Your task to perform on an android device: Show the shopping cart on costco.com. Search for razer naga on costco.com, select the first entry, and add it to the cart. Image 0: 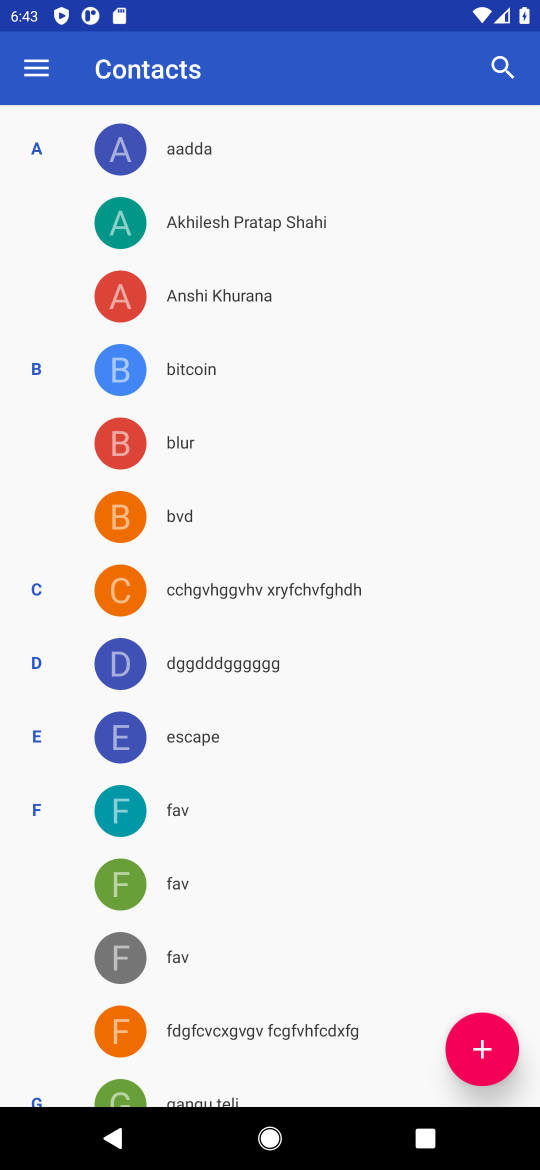
Step 0: press home button
Your task to perform on an android device: Show the shopping cart on costco.com. Search for razer naga on costco.com, select the first entry, and add it to the cart. Image 1: 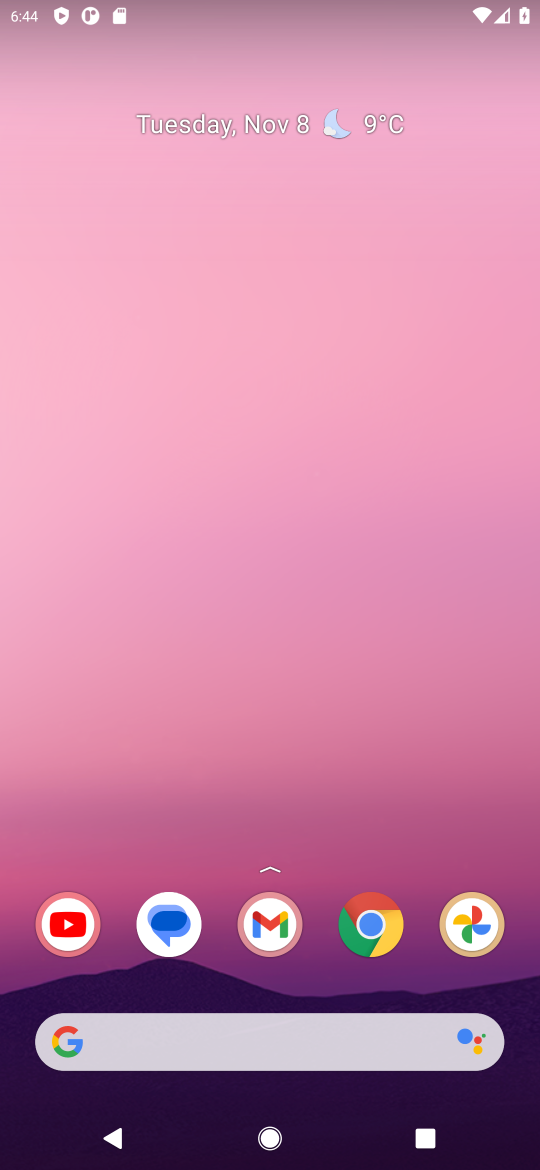
Step 1: click (284, 1046)
Your task to perform on an android device: Show the shopping cart on costco.com. Search for razer naga on costco.com, select the first entry, and add it to the cart. Image 2: 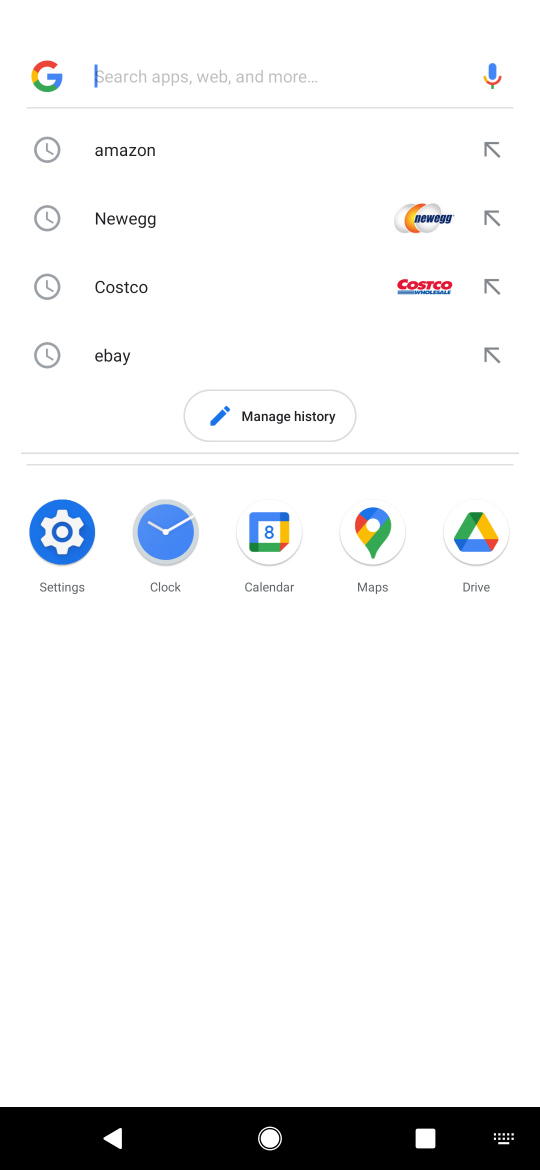
Step 2: click (284, 273)
Your task to perform on an android device: Show the shopping cart on costco.com. Search for razer naga on costco.com, select the first entry, and add it to the cart. Image 3: 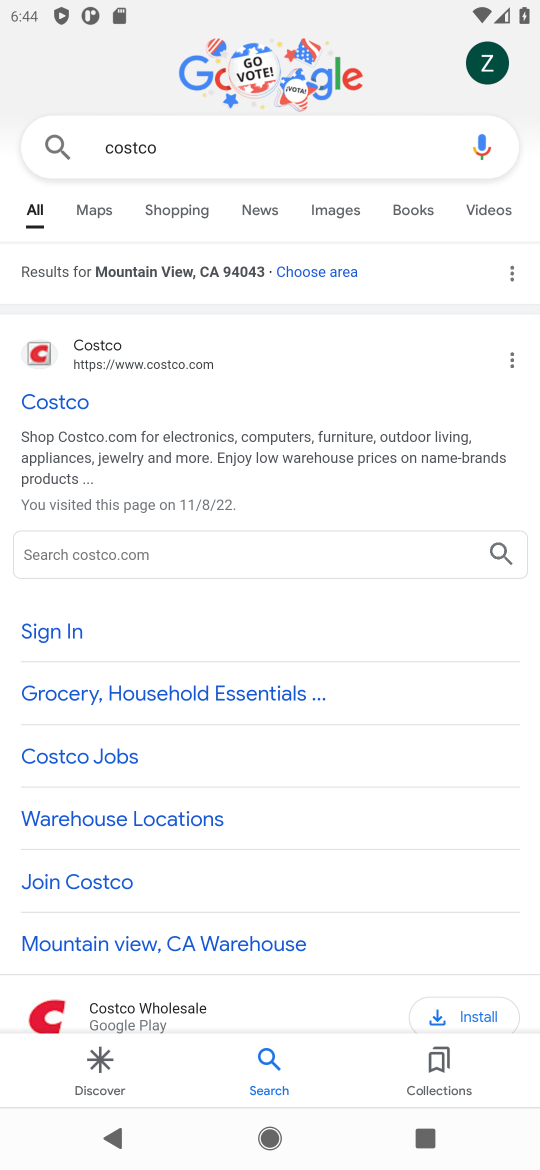
Step 3: click (106, 338)
Your task to perform on an android device: Show the shopping cart on costco.com. Search for razer naga on costco.com, select the first entry, and add it to the cart. Image 4: 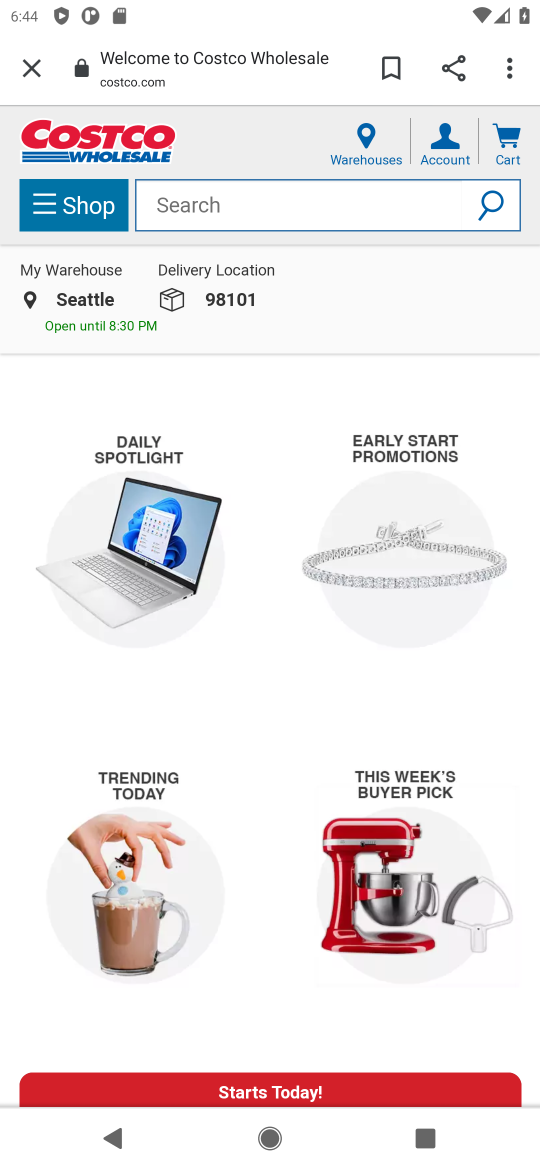
Step 4: click (408, 202)
Your task to perform on an android device: Show the shopping cart on costco.com. Search for razer naga on costco.com, select the first entry, and add it to the cart. Image 5: 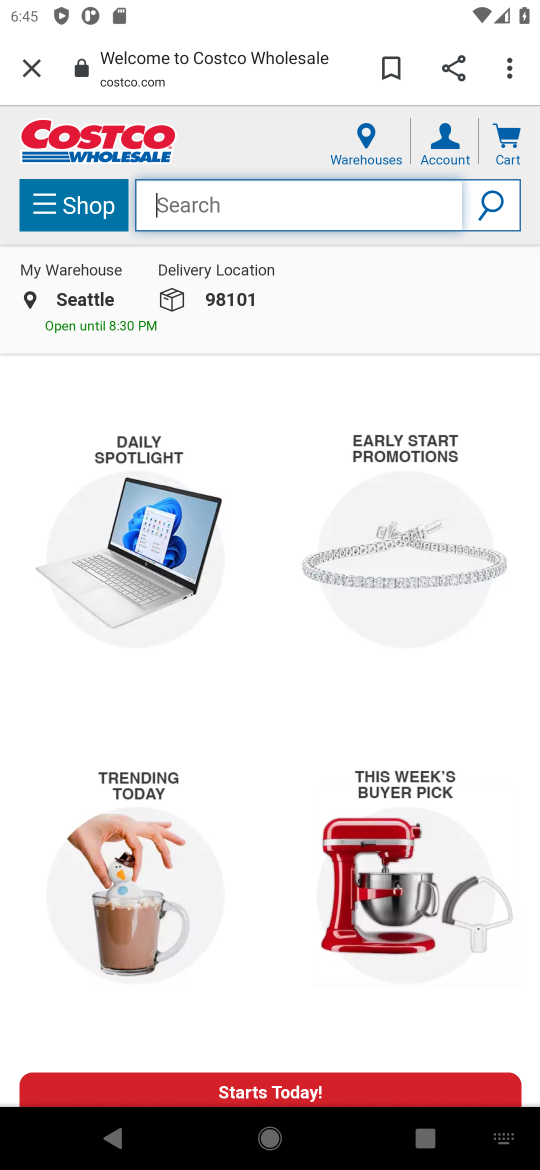
Step 5: type "razer naga "
Your task to perform on an android device: Show the shopping cart on costco.com. Search for razer naga on costco.com, select the first entry, and add it to the cart. Image 6: 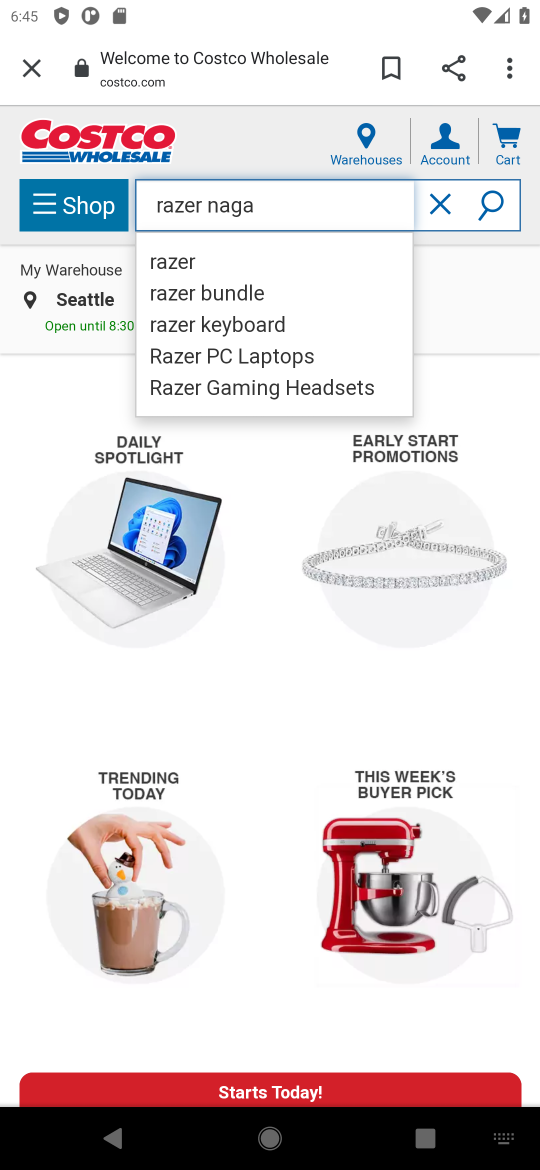
Step 6: click (177, 255)
Your task to perform on an android device: Show the shopping cart on costco.com. Search for razer naga on costco.com, select the first entry, and add it to the cart. Image 7: 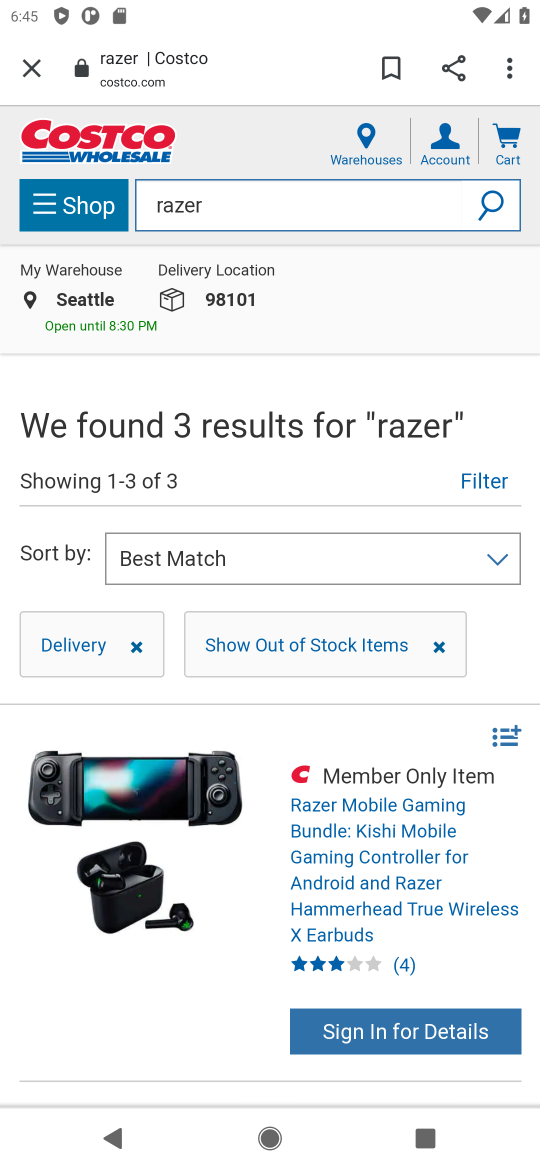
Step 7: click (166, 840)
Your task to perform on an android device: Show the shopping cart on costco.com. Search for razer naga on costco.com, select the first entry, and add it to the cart. Image 8: 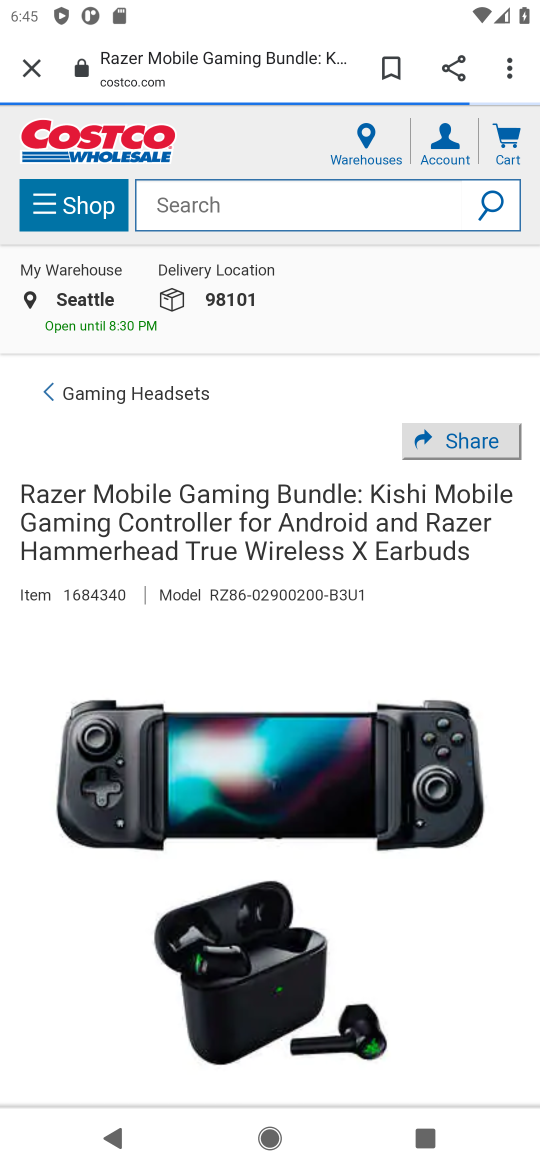
Step 8: drag from (356, 743) to (375, 449)
Your task to perform on an android device: Show the shopping cart on costco.com. Search for razer naga on costco.com, select the first entry, and add it to the cart. Image 9: 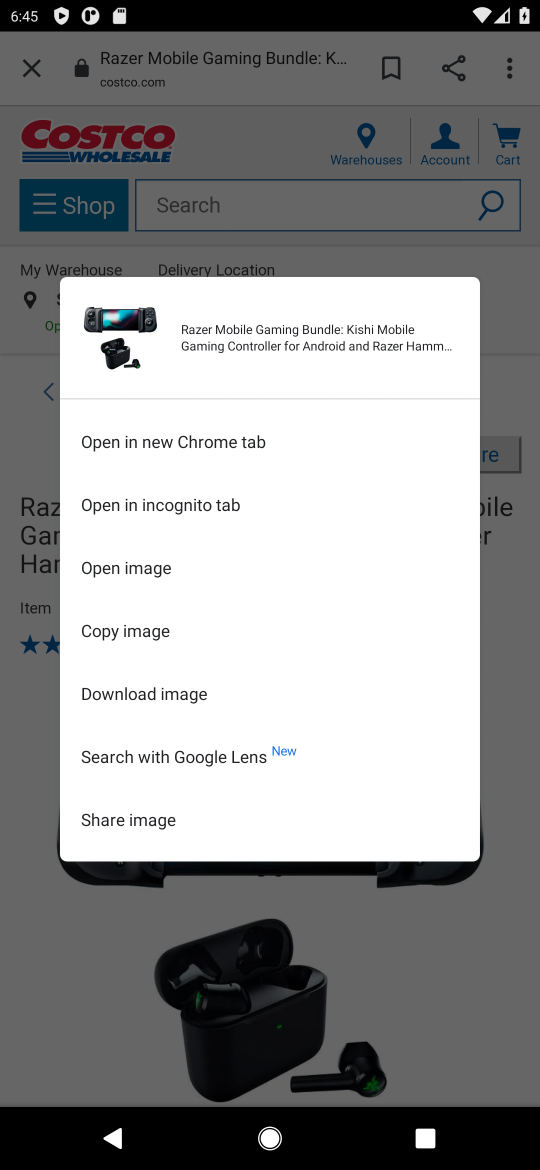
Step 9: click (420, 902)
Your task to perform on an android device: Show the shopping cart on costco.com. Search for razer naga on costco.com, select the first entry, and add it to the cart. Image 10: 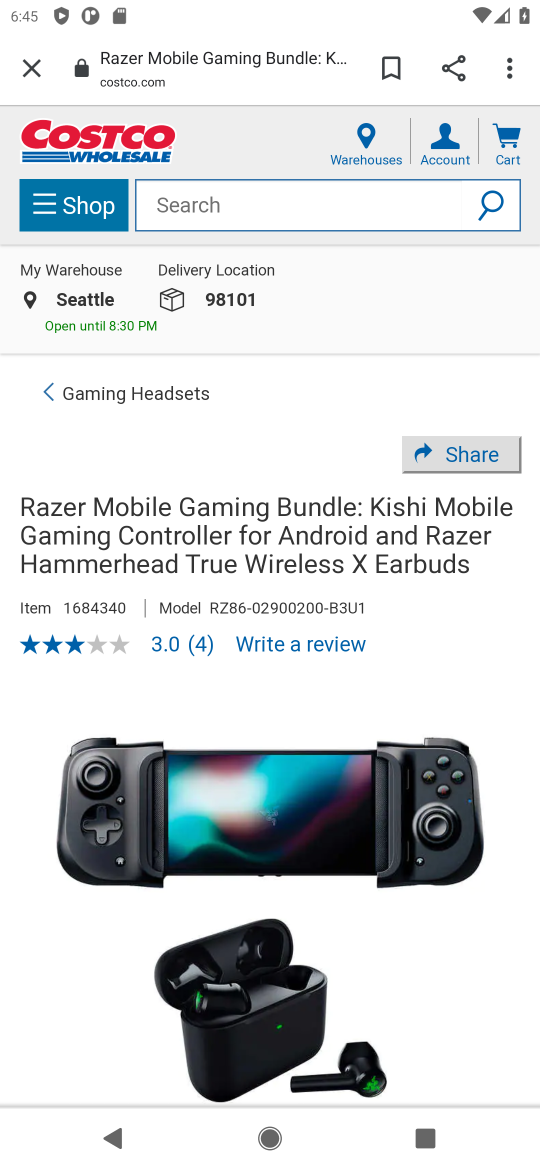
Step 10: drag from (393, 633) to (427, 557)
Your task to perform on an android device: Show the shopping cart on costco.com. Search for razer naga on costco.com, select the first entry, and add it to the cart. Image 11: 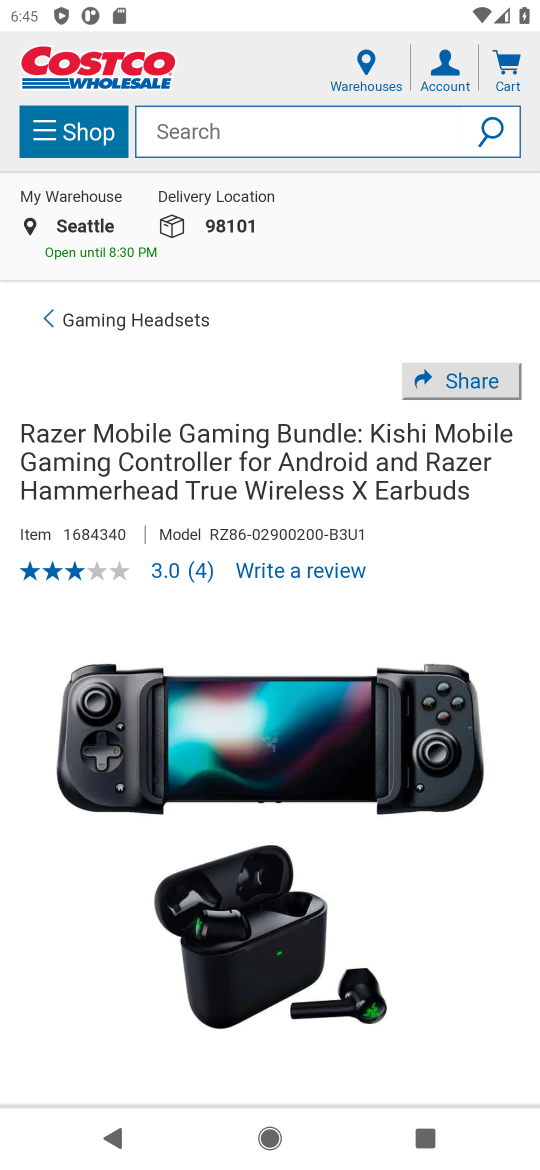
Step 11: click (281, 191)
Your task to perform on an android device: Show the shopping cart on costco.com. Search for razer naga on costco.com, select the first entry, and add it to the cart. Image 12: 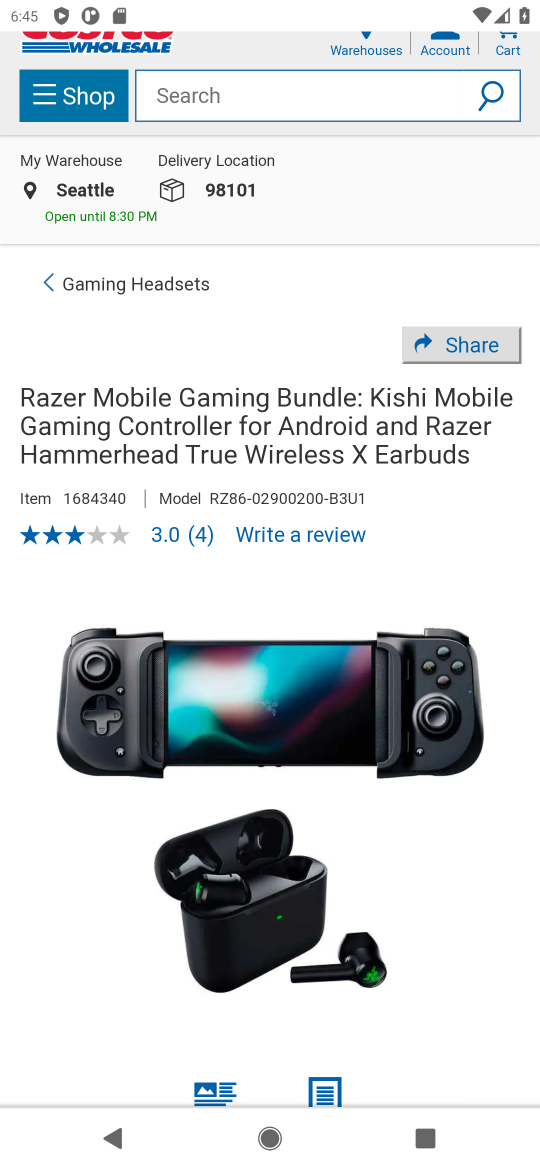
Step 12: drag from (290, 1005) to (427, 350)
Your task to perform on an android device: Show the shopping cart on costco.com. Search for razer naga on costco.com, select the first entry, and add it to the cart. Image 13: 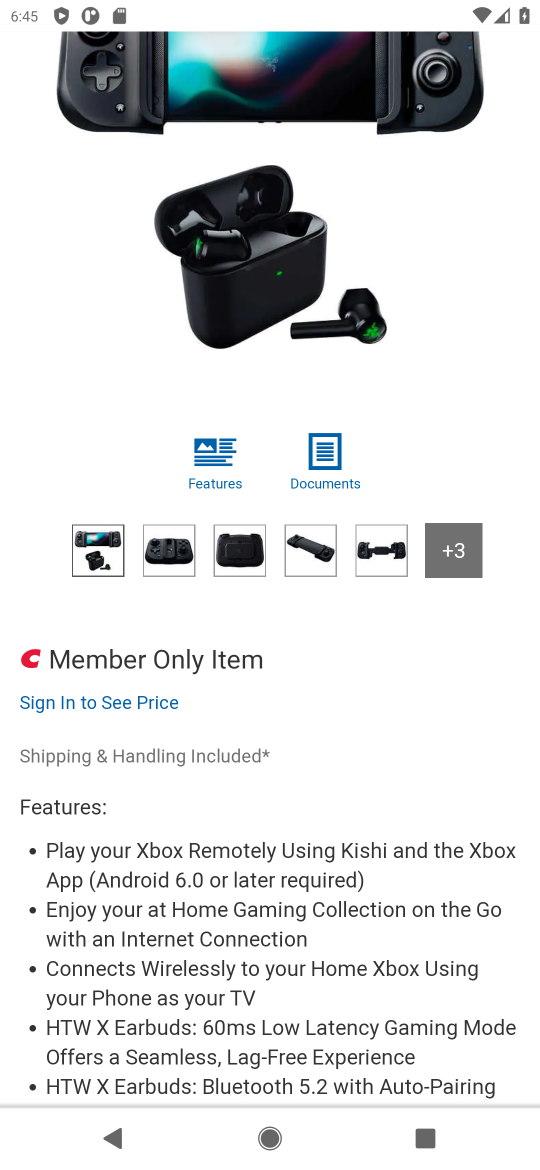
Step 13: drag from (274, 745) to (333, 328)
Your task to perform on an android device: Show the shopping cart on costco.com. Search for razer naga on costco.com, select the first entry, and add it to the cart. Image 14: 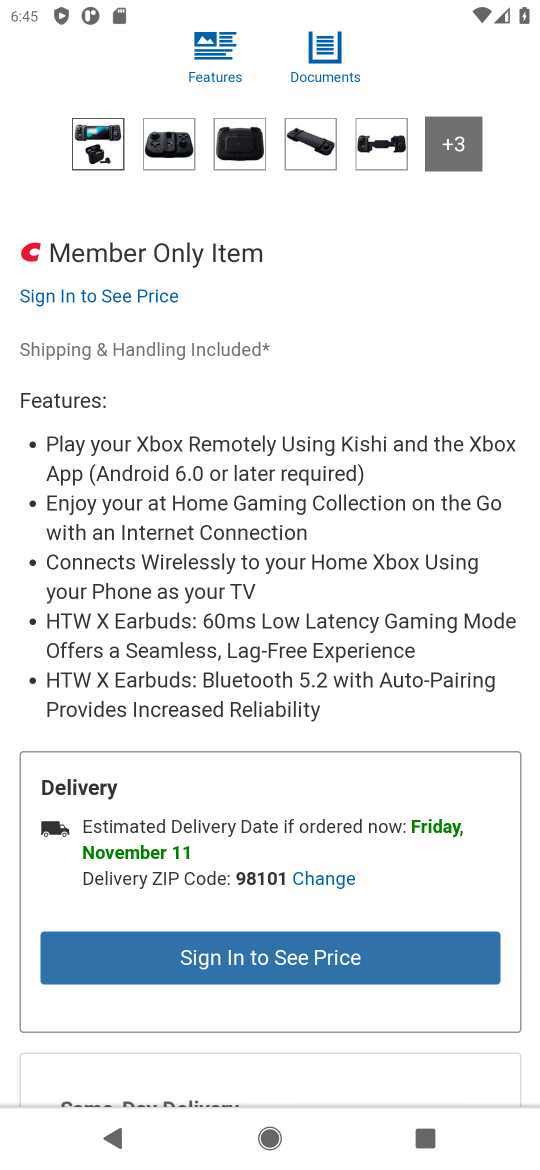
Step 14: drag from (266, 974) to (298, 568)
Your task to perform on an android device: Show the shopping cart on costco.com. Search for razer naga on costco.com, select the first entry, and add it to the cart. Image 15: 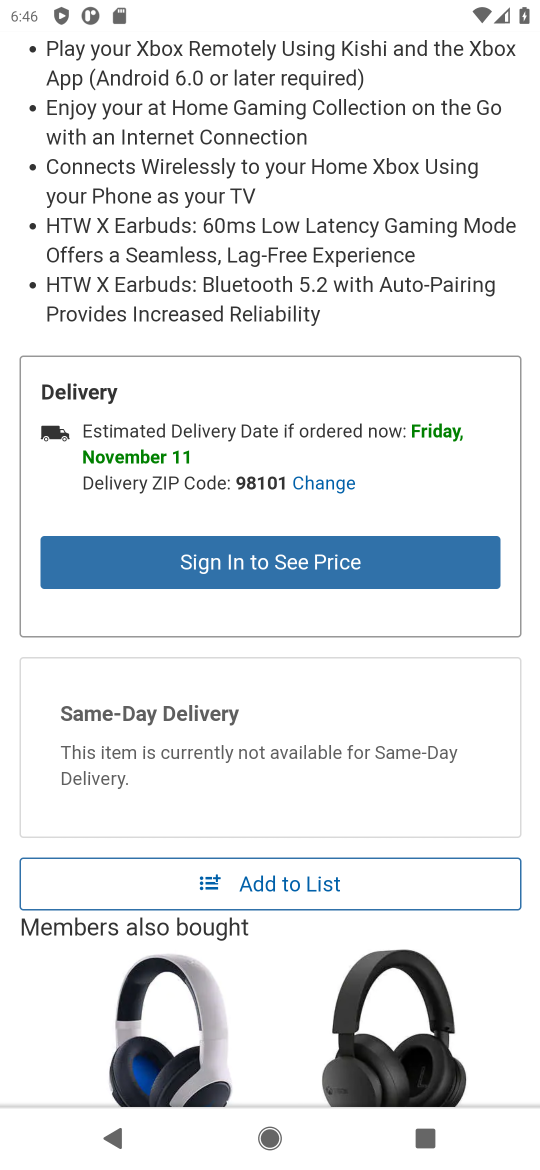
Step 15: drag from (242, 805) to (296, 530)
Your task to perform on an android device: Show the shopping cart on costco.com. Search for razer naga on costco.com, select the first entry, and add it to the cart. Image 16: 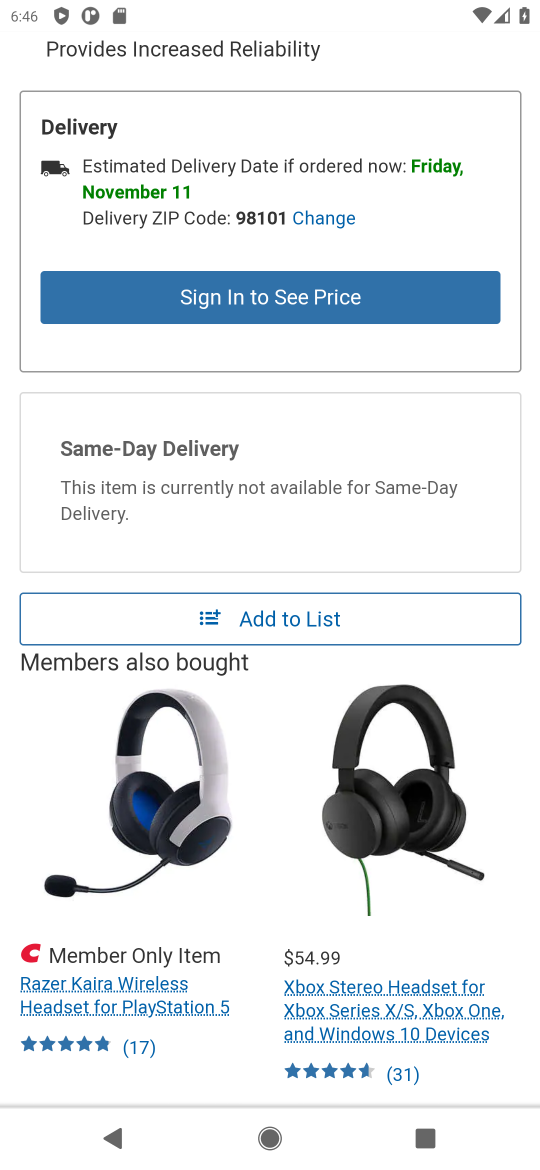
Step 16: click (286, 619)
Your task to perform on an android device: Show the shopping cart on costco.com. Search for razer naga on costco.com, select the first entry, and add it to the cart. Image 17: 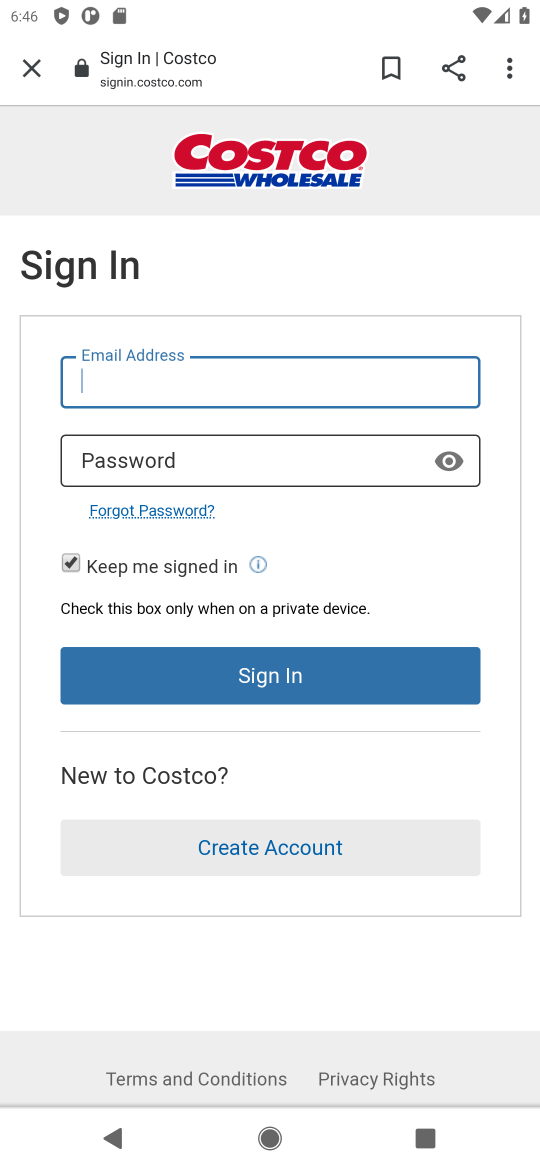
Step 17: task complete